Your task to perform on an android device: check data usage Image 0: 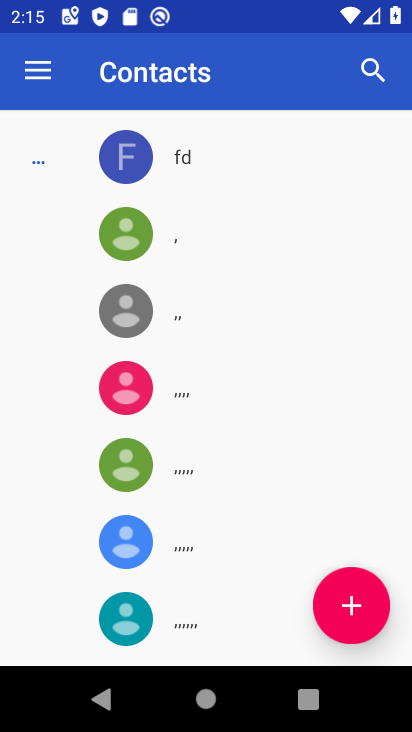
Step 0: press home button
Your task to perform on an android device: check data usage Image 1: 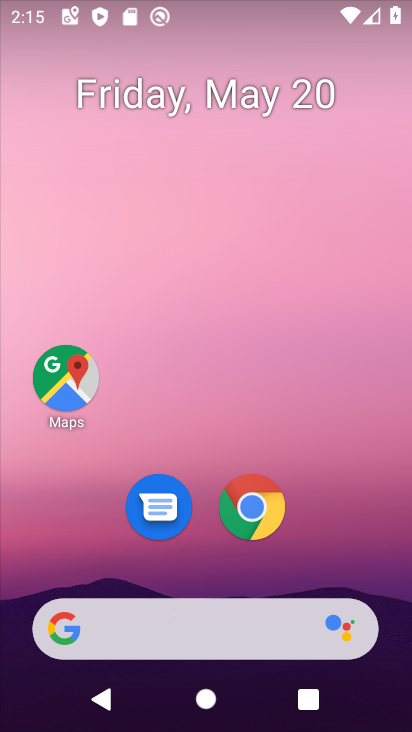
Step 1: drag from (195, 724) to (186, 191)
Your task to perform on an android device: check data usage Image 2: 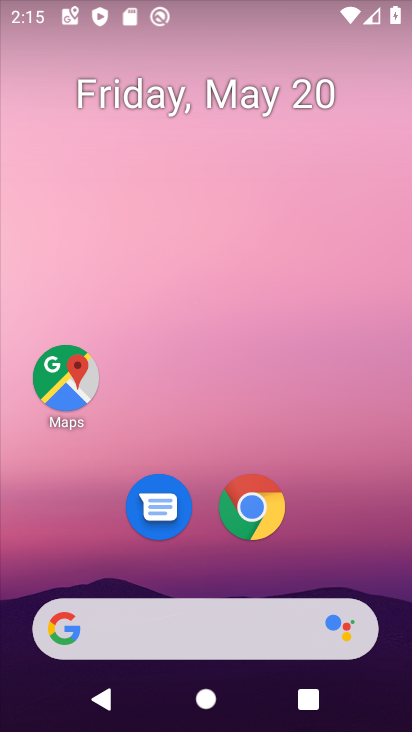
Step 2: drag from (177, 720) to (172, 109)
Your task to perform on an android device: check data usage Image 3: 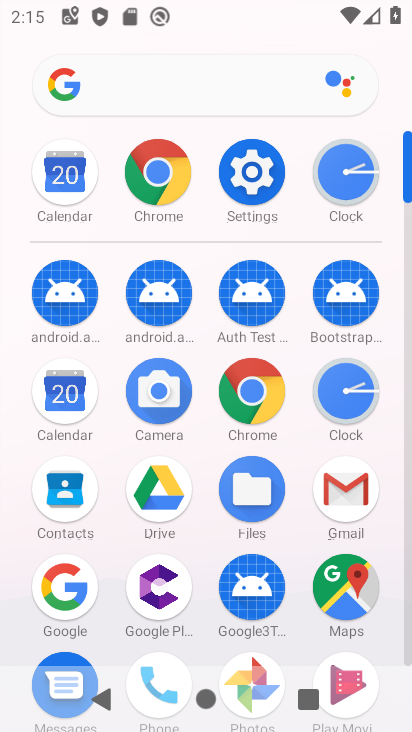
Step 3: click (255, 171)
Your task to perform on an android device: check data usage Image 4: 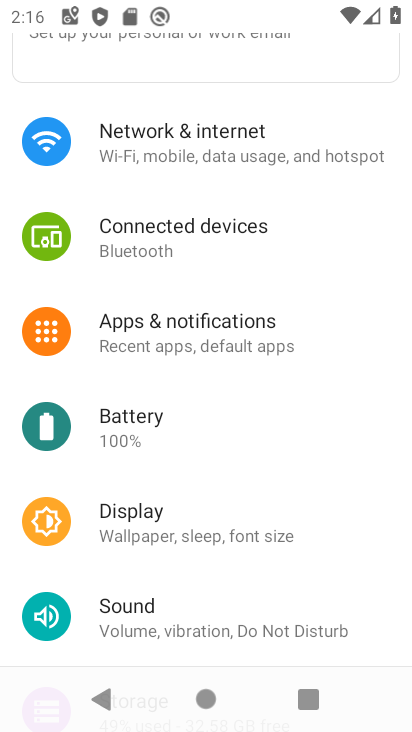
Step 4: drag from (127, 172) to (173, 528)
Your task to perform on an android device: check data usage Image 5: 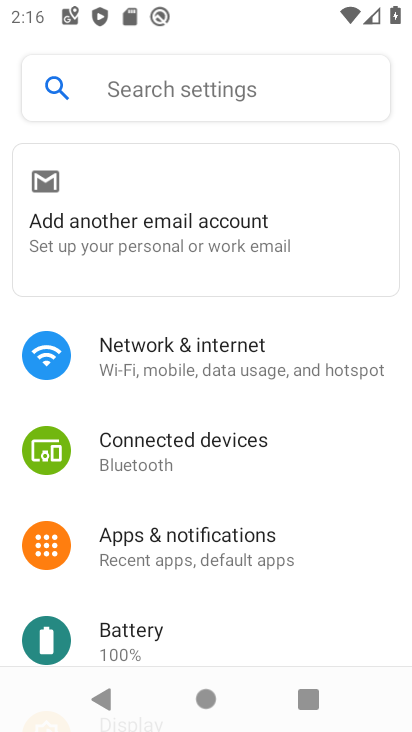
Step 5: click (167, 358)
Your task to perform on an android device: check data usage Image 6: 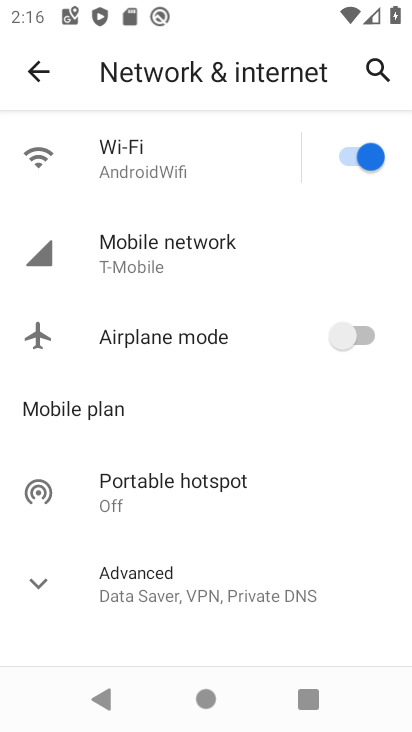
Step 6: click (153, 254)
Your task to perform on an android device: check data usage Image 7: 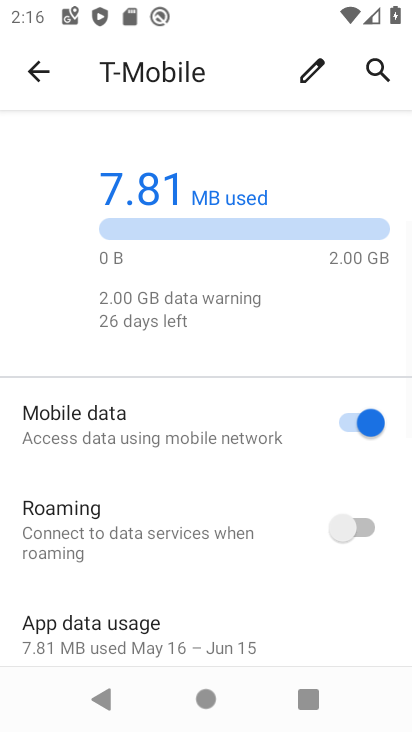
Step 7: click (132, 625)
Your task to perform on an android device: check data usage Image 8: 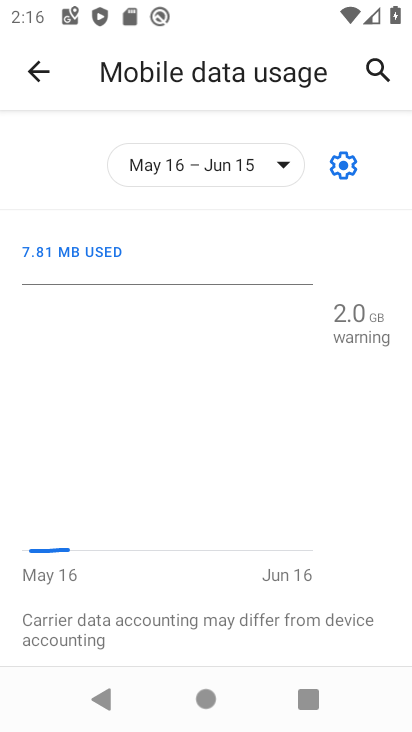
Step 8: task complete